Your task to perform on an android device: When is my next appointment? Image 0: 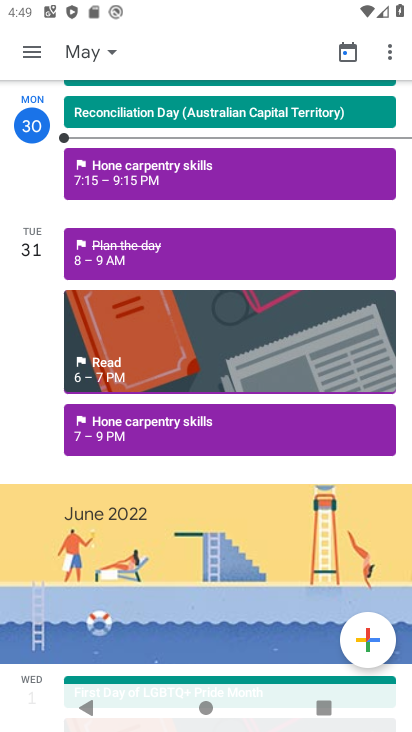
Step 0: drag from (153, 444) to (146, 94)
Your task to perform on an android device: When is my next appointment? Image 1: 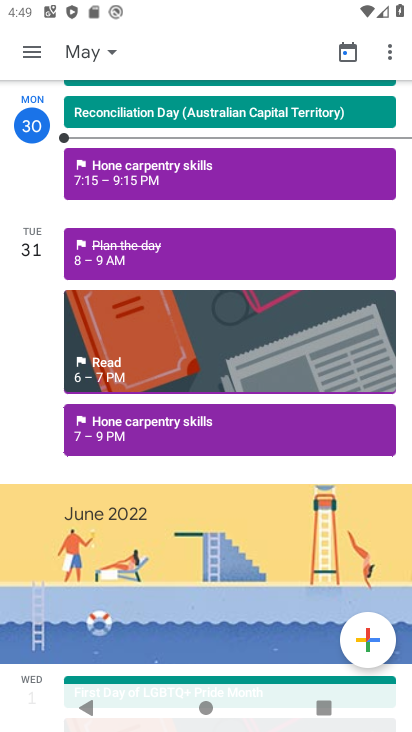
Step 1: drag from (149, 454) to (88, 216)
Your task to perform on an android device: When is my next appointment? Image 2: 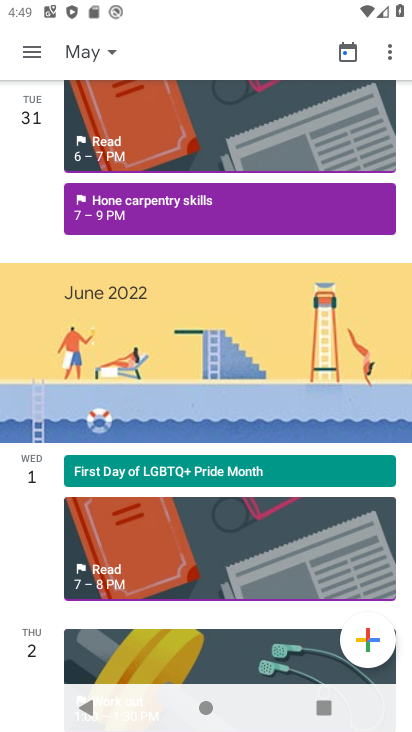
Step 2: drag from (131, 500) to (109, 294)
Your task to perform on an android device: When is my next appointment? Image 3: 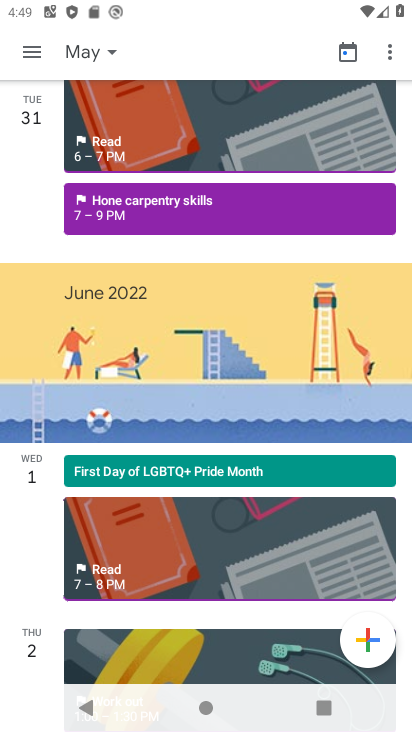
Step 3: drag from (126, 505) to (142, 139)
Your task to perform on an android device: When is my next appointment? Image 4: 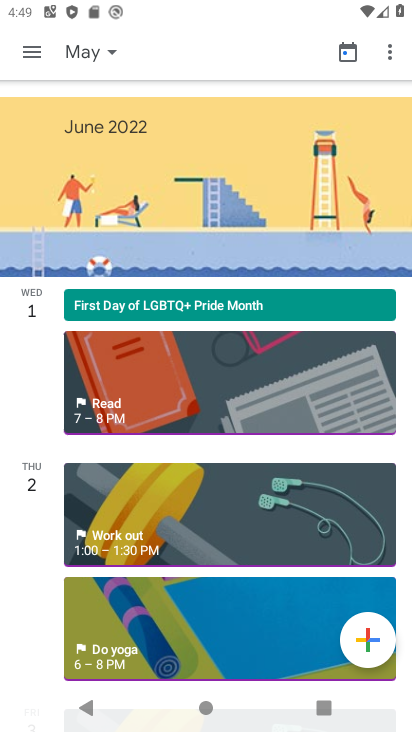
Step 4: drag from (131, 307) to (106, 124)
Your task to perform on an android device: When is my next appointment? Image 5: 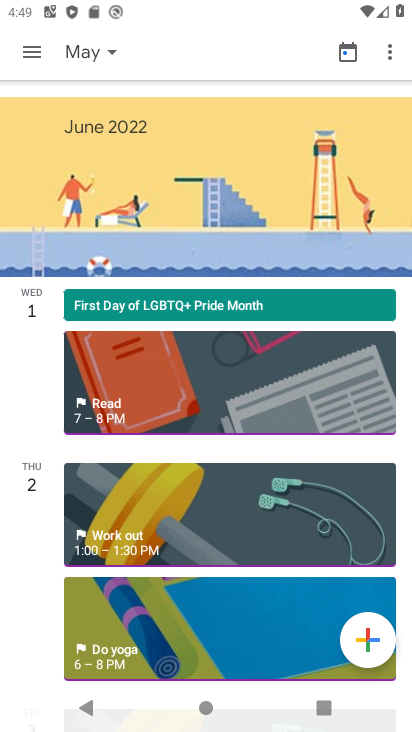
Step 5: drag from (142, 431) to (135, 39)
Your task to perform on an android device: When is my next appointment? Image 6: 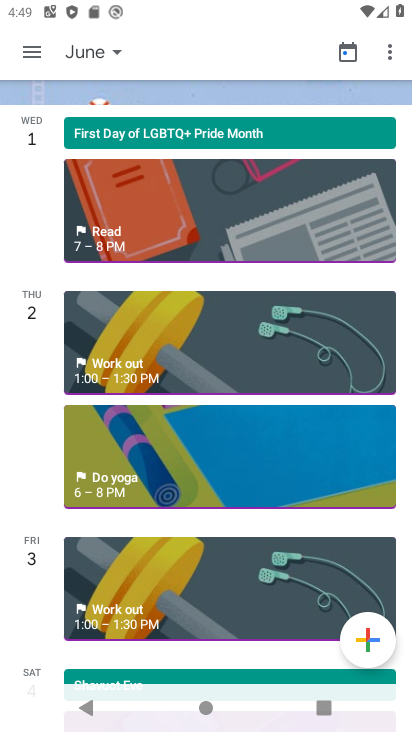
Step 6: drag from (132, 373) to (101, 156)
Your task to perform on an android device: When is my next appointment? Image 7: 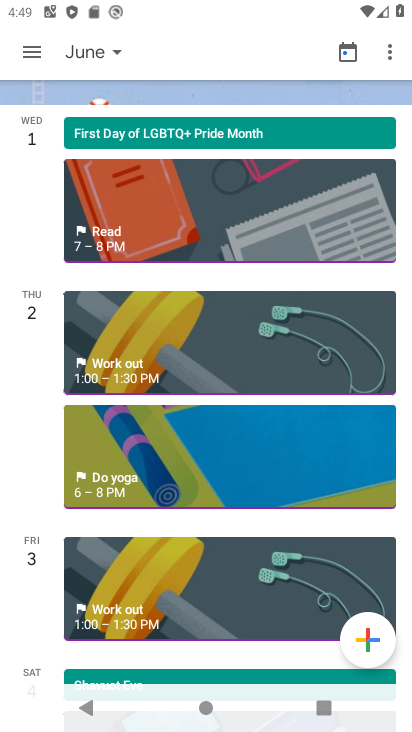
Step 7: drag from (127, 494) to (141, 184)
Your task to perform on an android device: When is my next appointment? Image 8: 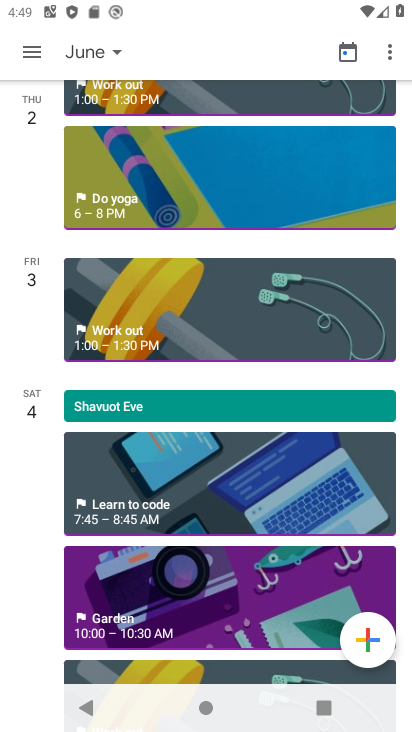
Step 8: click (133, 409)
Your task to perform on an android device: When is my next appointment? Image 9: 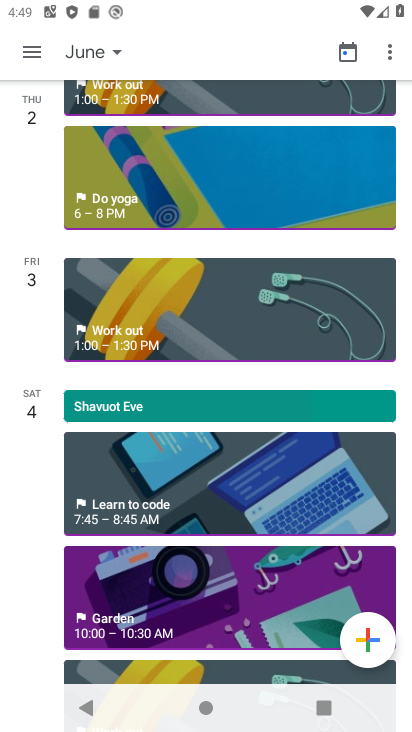
Step 9: click (133, 411)
Your task to perform on an android device: When is my next appointment? Image 10: 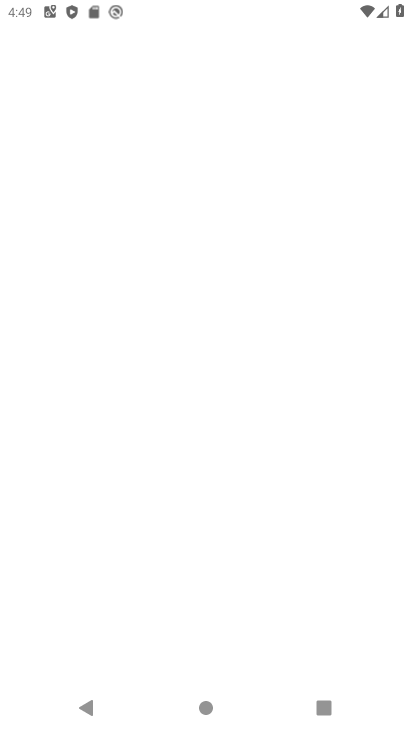
Step 10: click (162, 485)
Your task to perform on an android device: When is my next appointment? Image 11: 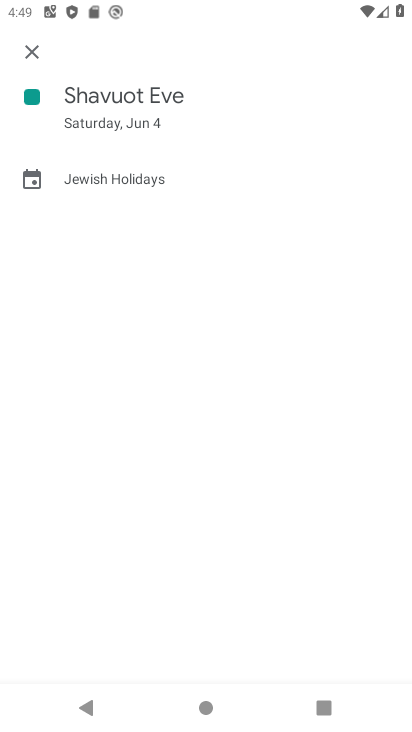
Step 11: task complete